Your task to perform on an android device: Add "bose soundsport free" to the cart on ebay Image 0: 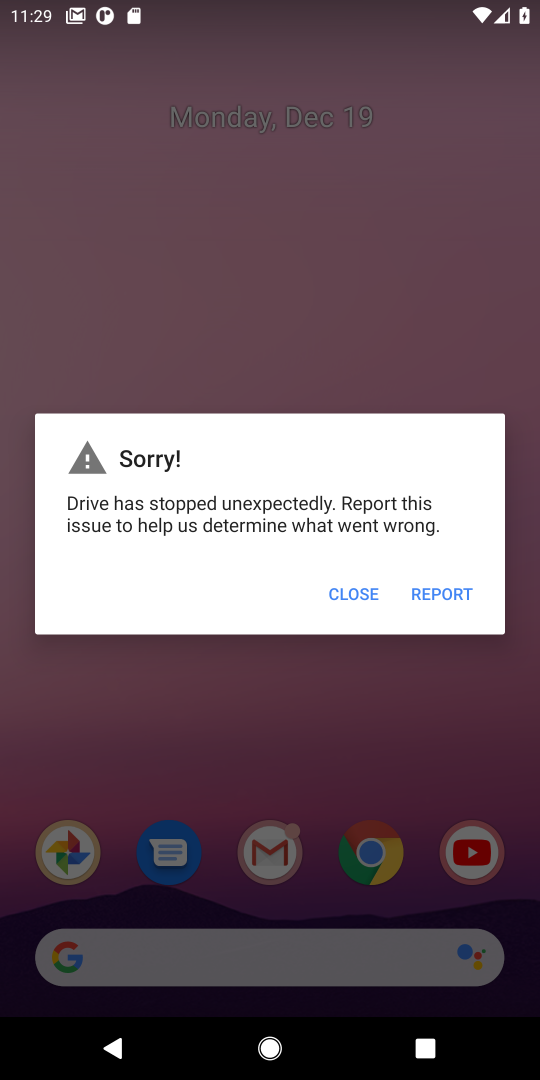
Step 0: press home button
Your task to perform on an android device: Add "bose soundsport free" to the cart on ebay Image 1: 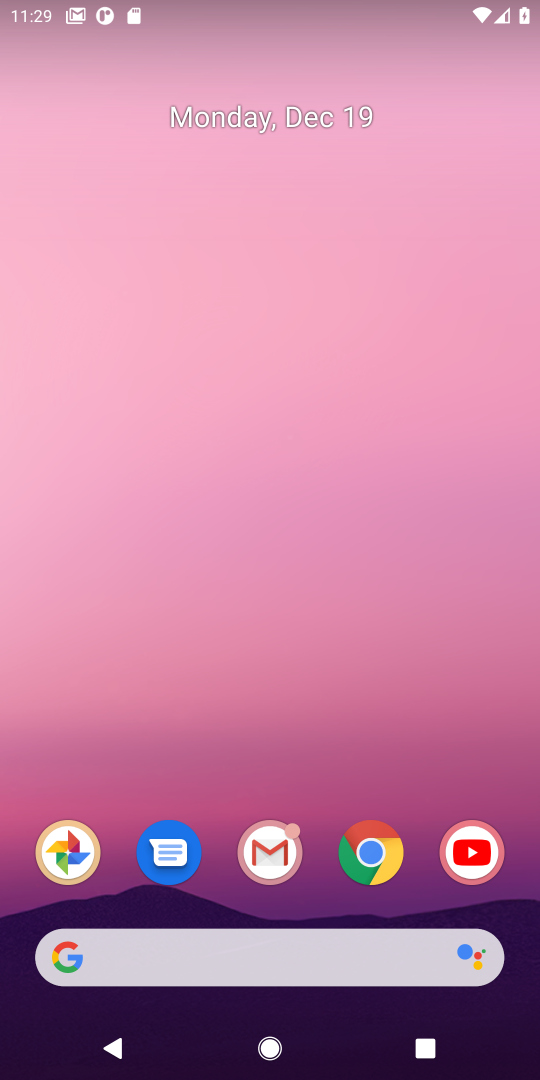
Step 1: click (378, 856)
Your task to perform on an android device: Add "bose soundsport free" to the cart on ebay Image 2: 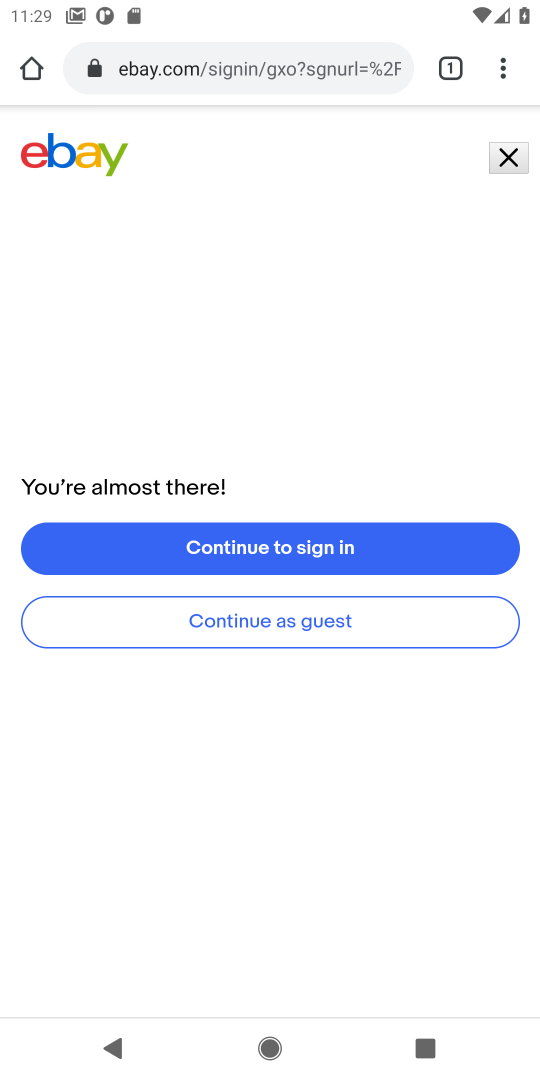
Step 2: click (499, 156)
Your task to perform on an android device: Add "bose soundsport free" to the cart on ebay Image 3: 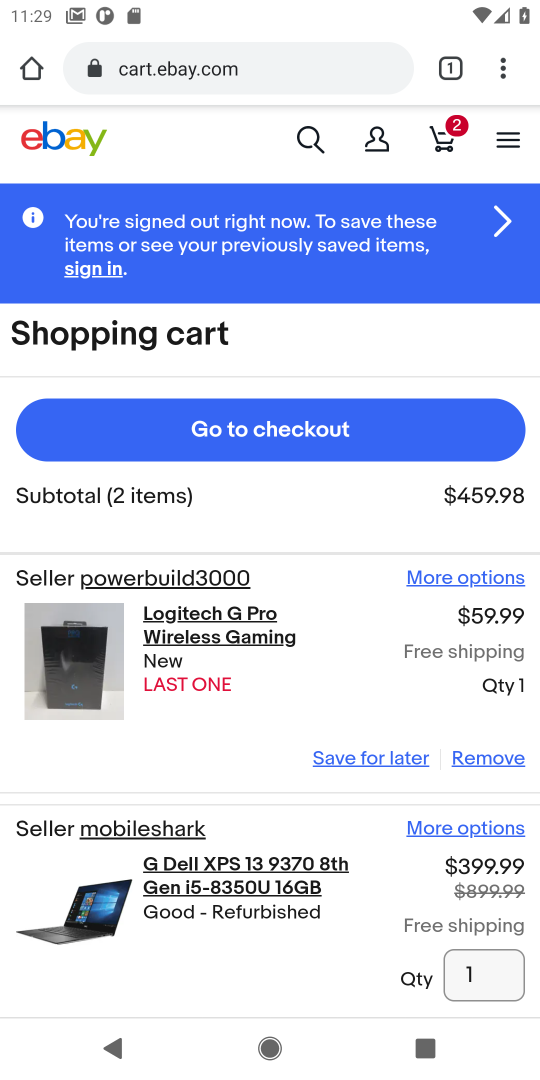
Step 3: click (304, 142)
Your task to perform on an android device: Add "bose soundsport free" to the cart on ebay Image 4: 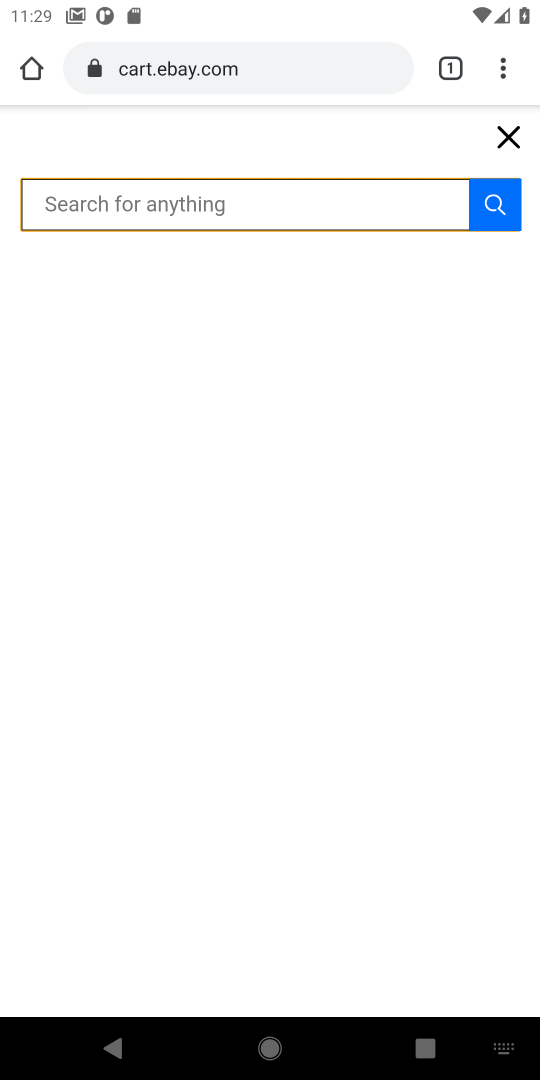
Step 4: type "bose soundsport free"
Your task to perform on an android device: Add "bose soundsport free" to the cart on ebay Image 5: 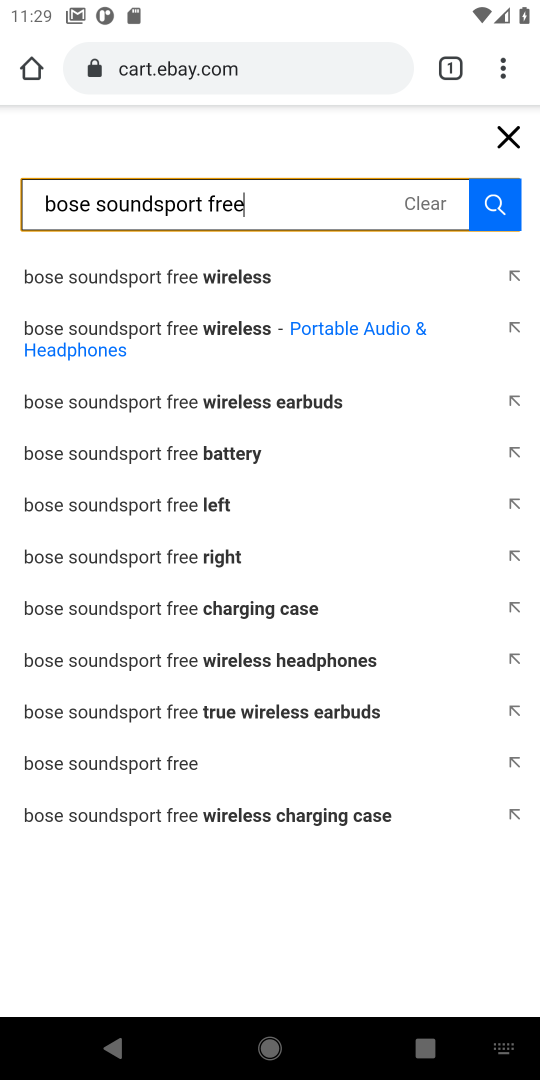
Step 5: click (72, 763)
Your task to perform on an android device: Add "bose soundsport free" to the cart on ebay Image 6: 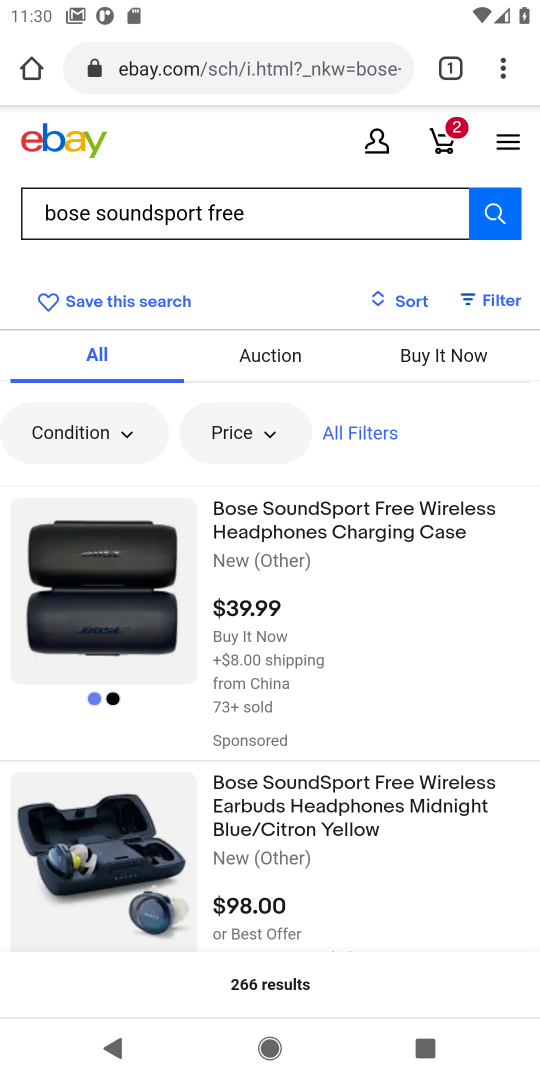
Step 6: click (253, 532)
Your task to perform on an android device: Add "bose soundsport free" to the cart on ebay Image 7: 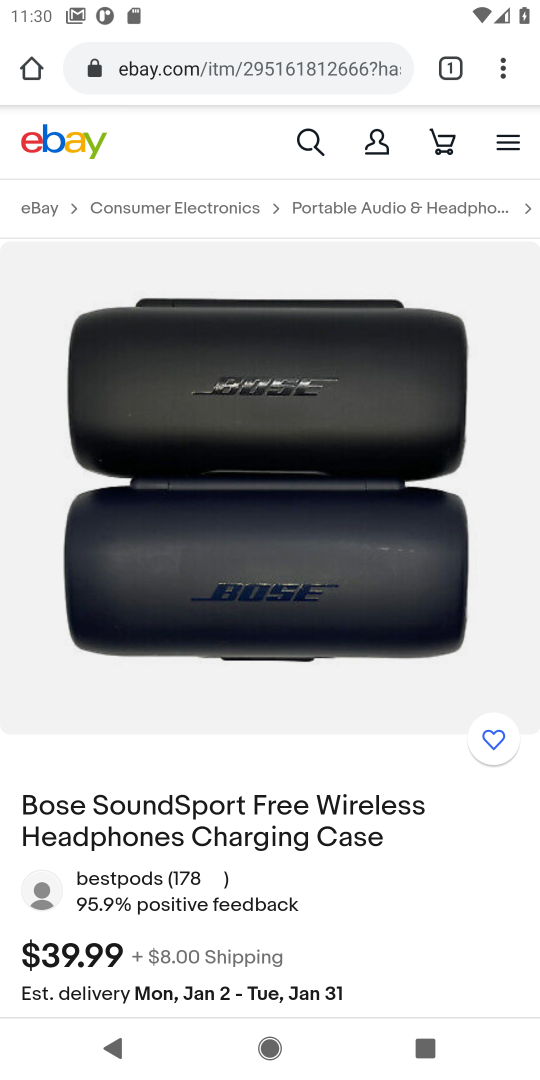
Step 7: drag from (263, 815) to (287, 329)
Your task to perform on an android device: Add "bose soundsport free" to the cart on ebay Image 8: 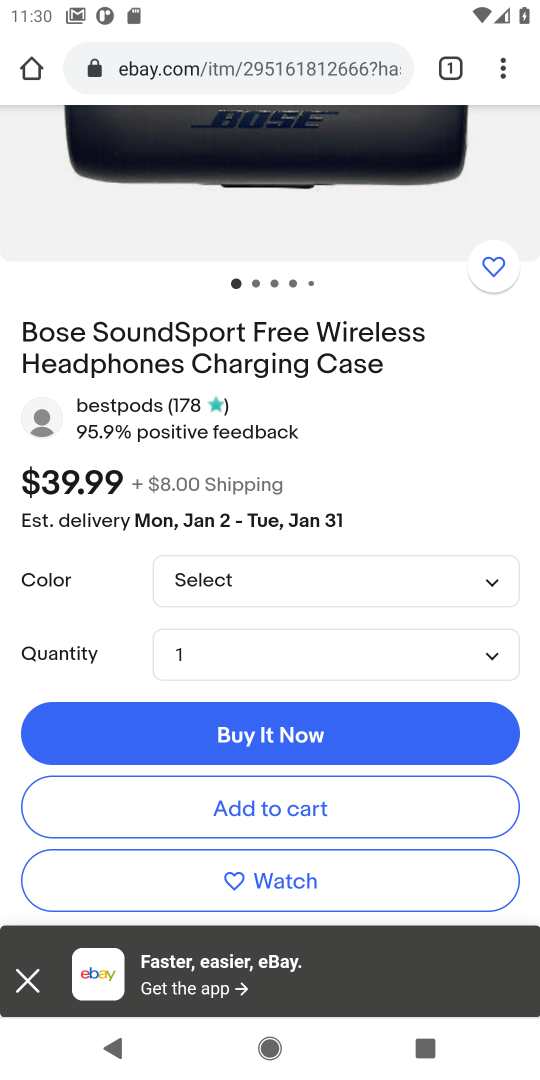
Step 8: click (234, 808)
Your task to perform on an android device: Add "bose soundsport free" to the cart on ebay Image 9: 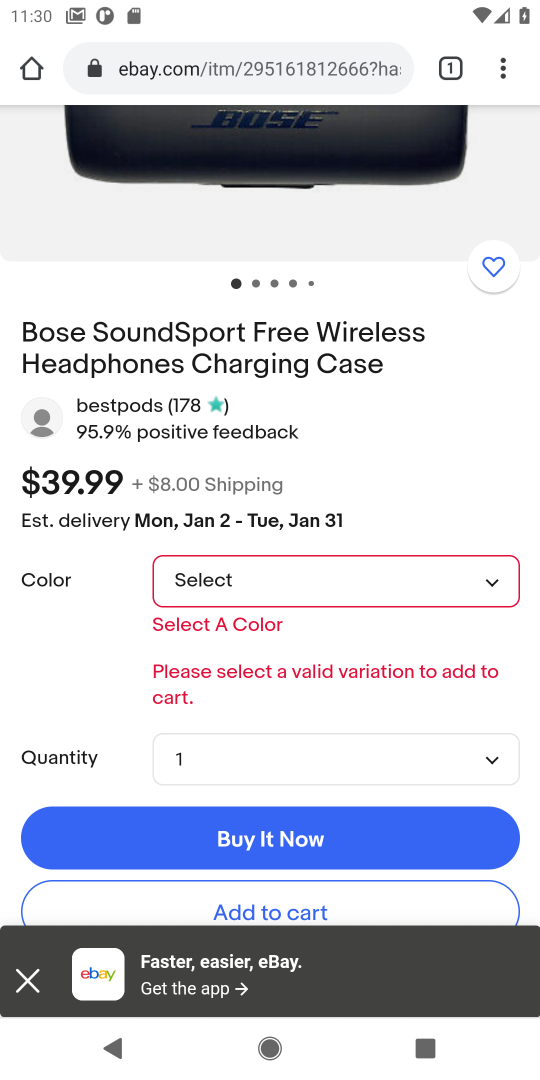
Step 9: click (499, 581)
Your task to perform on an android device: Add "bose soundsport free" to the cart on ebay Image 10: 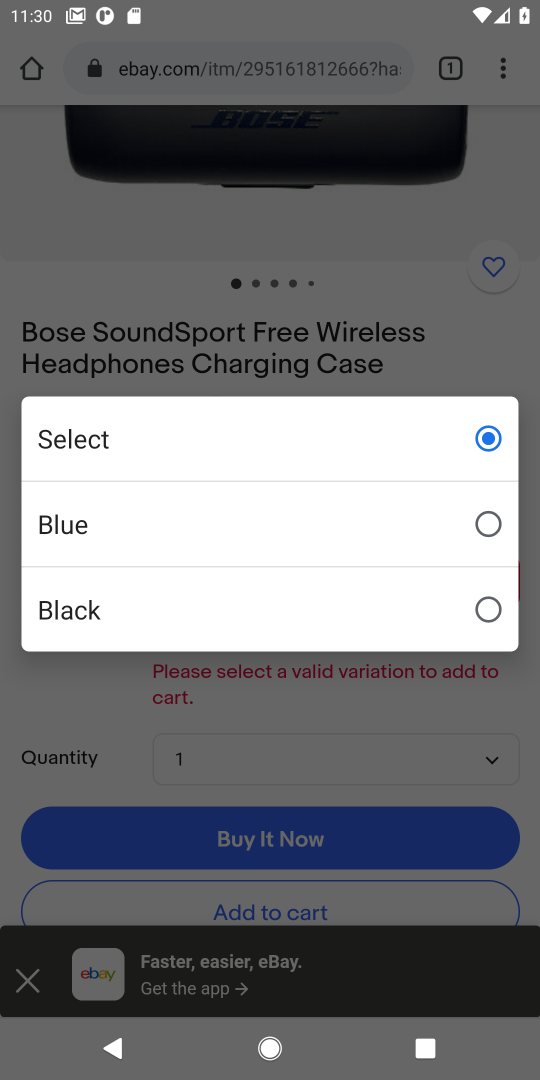
Step 10: click (63, 528)
Your task to perform on an android device: Add "bose soundsport free" to the cart on ebay Image 11: 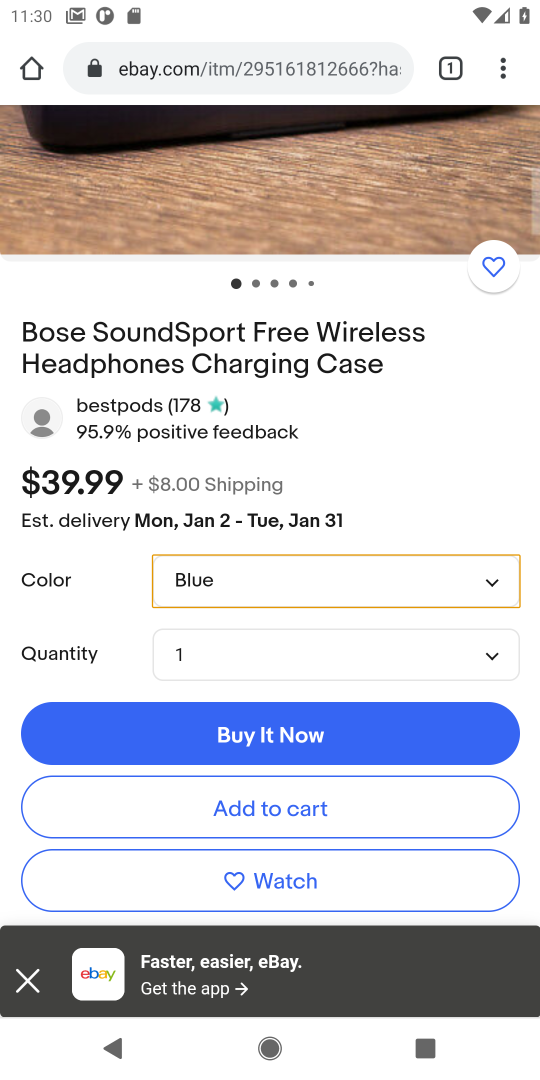
Step 11: click (237, 811)
Your task to perform on an android device: Add "bose soundsport free" to the cart on ebay Image 12: 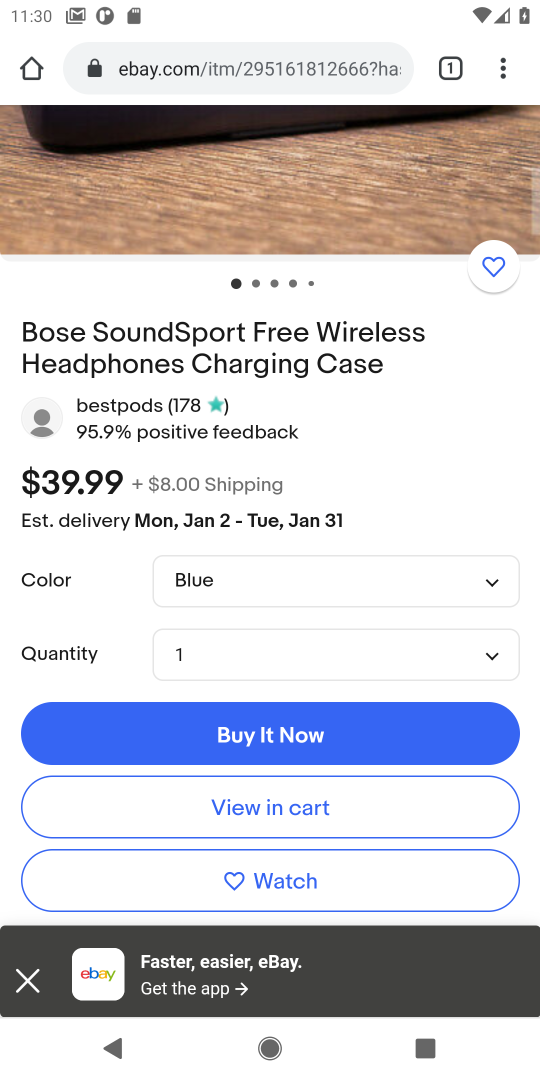
Step 12: task complete